Your task to perform on an android device: Open the calendar and show me this week's events Image 0: 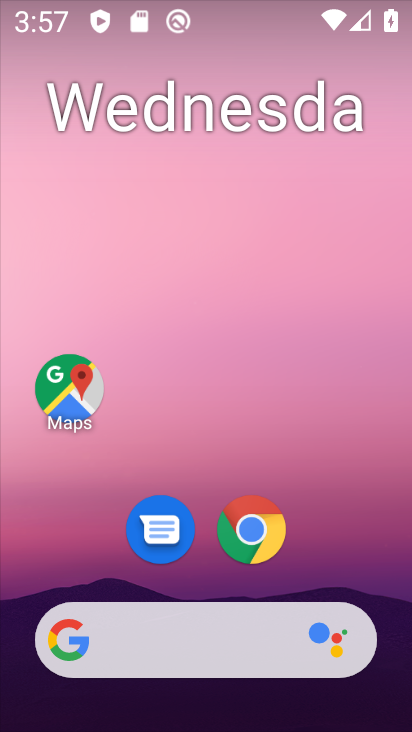
Step 0: drag from (313, 551) to (298, 140)
Your task to perform on an android device: Open the calendar and show me this week's events Image 1: 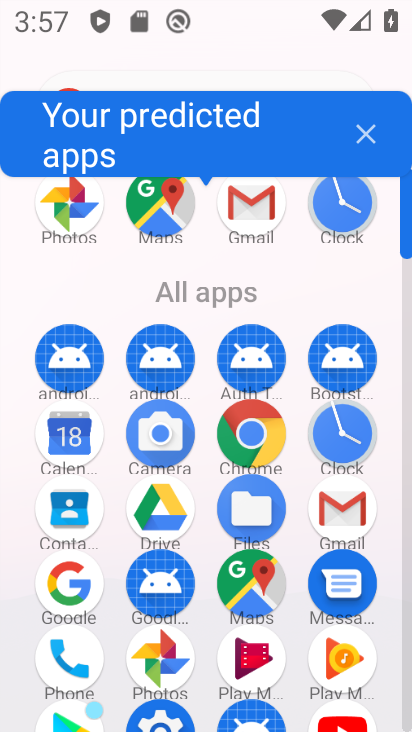
Step 1: click (77, 432)
Your task to perform on an android device: Open the calendar and show me this week's events Image 2: 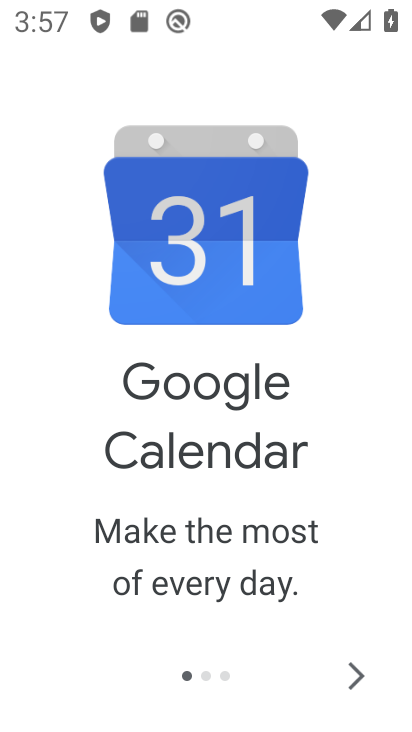
Step 2: click (359, 676)
Your task to perform on an android device: Open the calendar and show me this week's events Image 3: 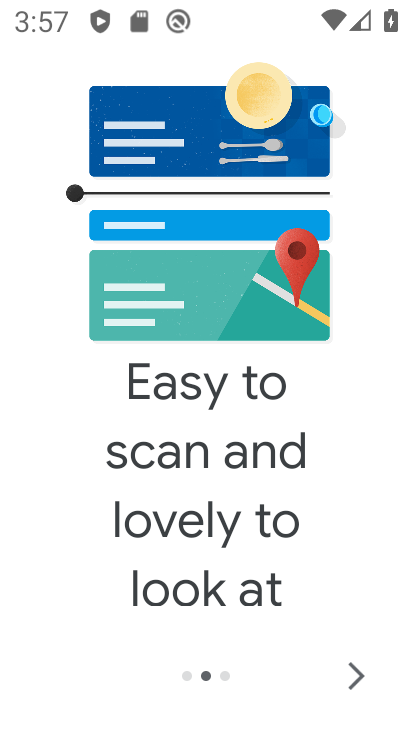
Step 3: click (359, 676)
Your task to perform on an android device: Open the calendar and show me this week's events Image 4: 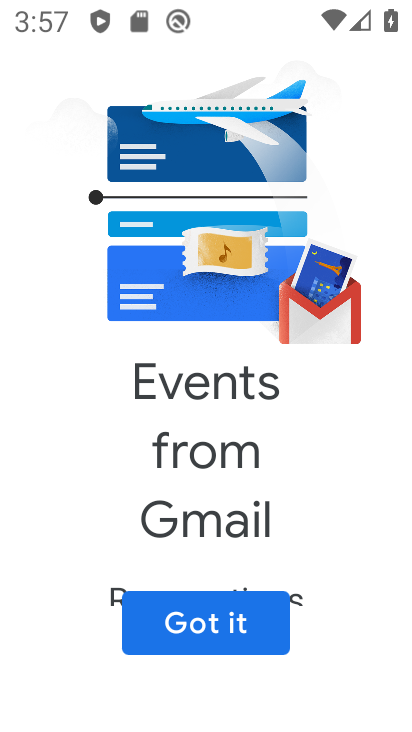
Step 4: click (209, 617)
Your task to perform on an android device: Open the calendar and show me this week's events Image 5: 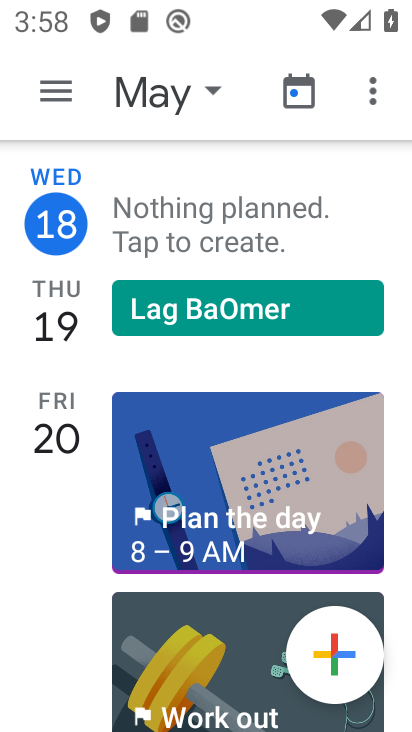
Step 5: task complete